Your task to perform on an android device: Go to eBay Image 0: 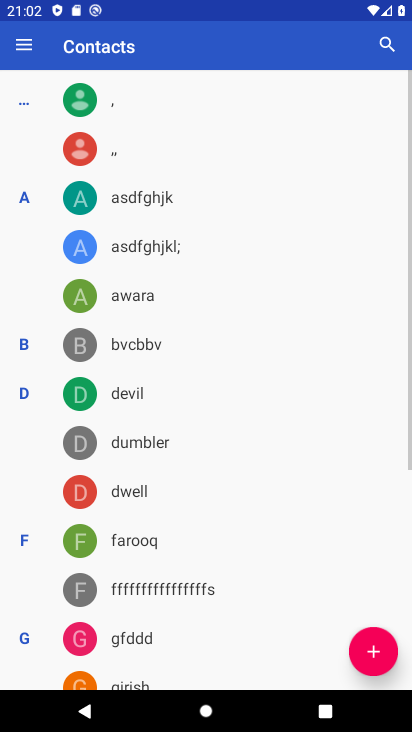
Step 0: press home button
Your task to perform on an android device: Go to eBay Image 1: 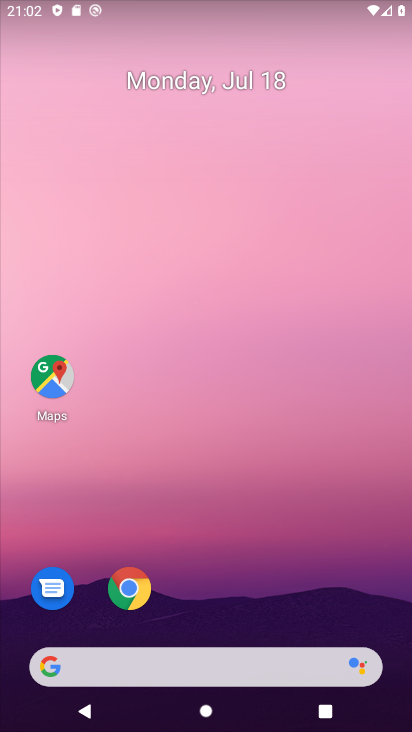
Step 1: click (126, 590)
Your task to perform on an android device: Go to eBay Image 2: 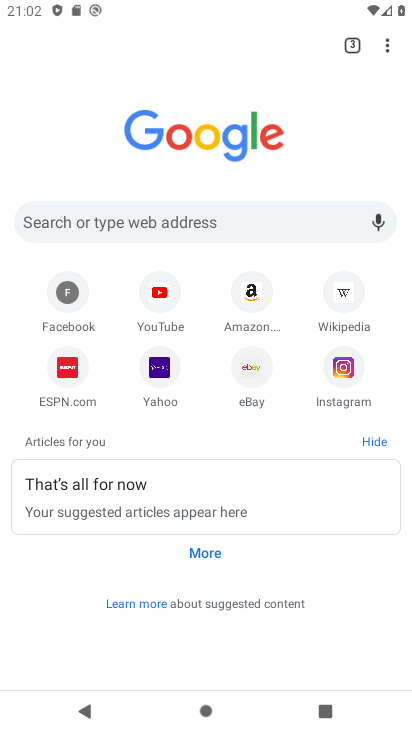
Step 2: click (252, 367)
Your task to perform on an android device: Go to eBay Image 3: 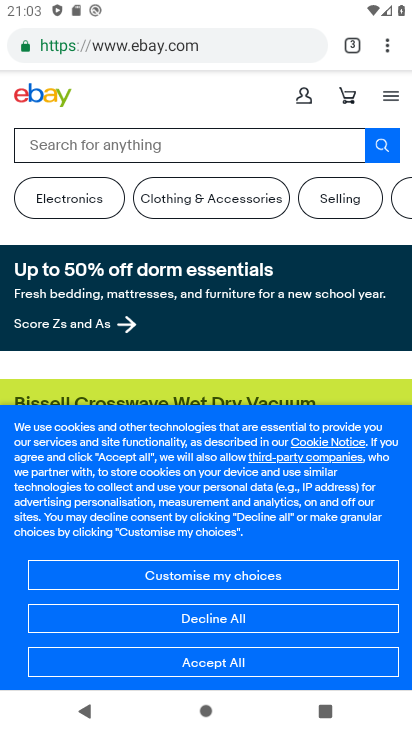
Step 3: click (239, 665)
Your task to perform on an android device: Go to eBay Image 4: 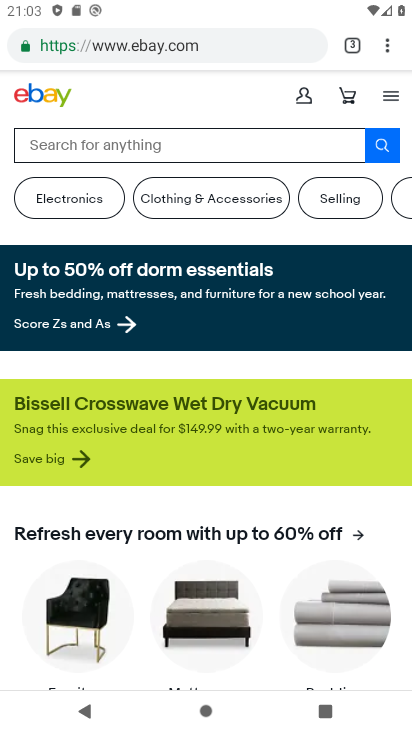
Step 4: task complete